Your task to perform on an android device: star an email in the gmail app Image 0: 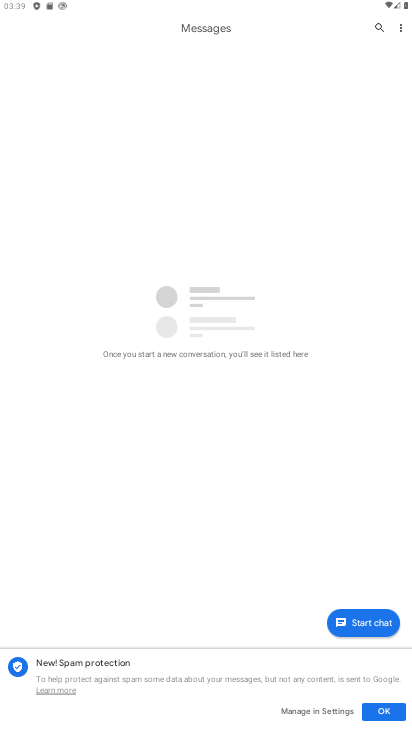
Step 0: press home button
Your task to perform on an android device: star an email in the gmail app Image 1: 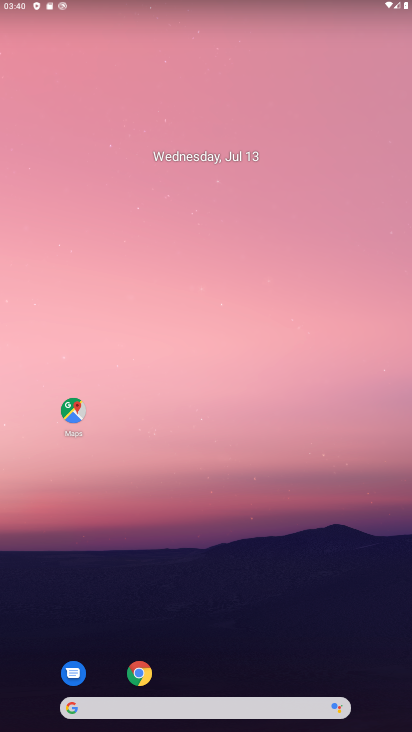
Step 1: drag from (302, 636) to (311, 64)
Your task to perform on an android device: star an email in the gmail app Image 2: 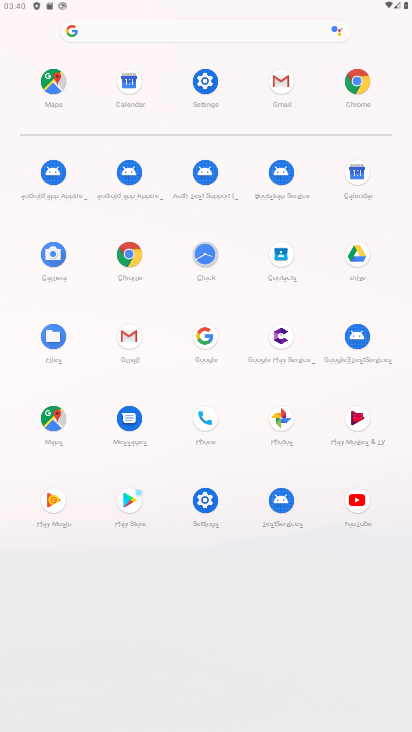
Step 2: click (129, 331)
Your task to perform on an android device: star an email in the gmail app Image 3: 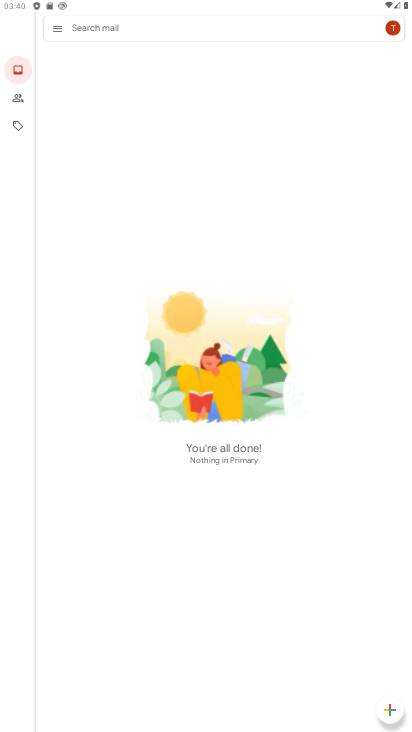
Step 3: click (52, 32)
Your task to perform on an android device: star an email in the gmail app Image 4: 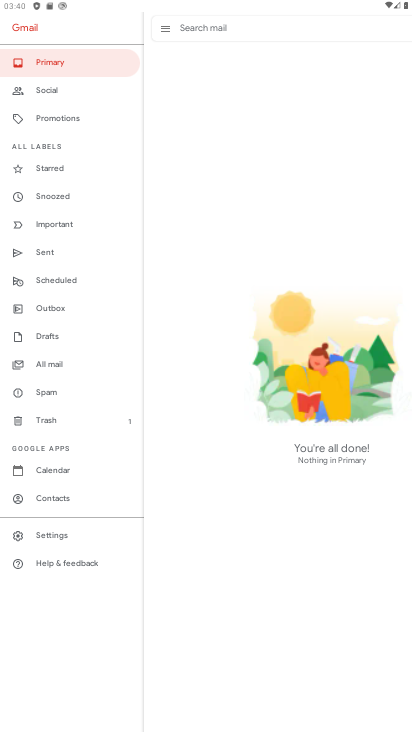
Step 4: click (269, 205)
Your task to perform on an android device: star an email in the gmail app Image 5: 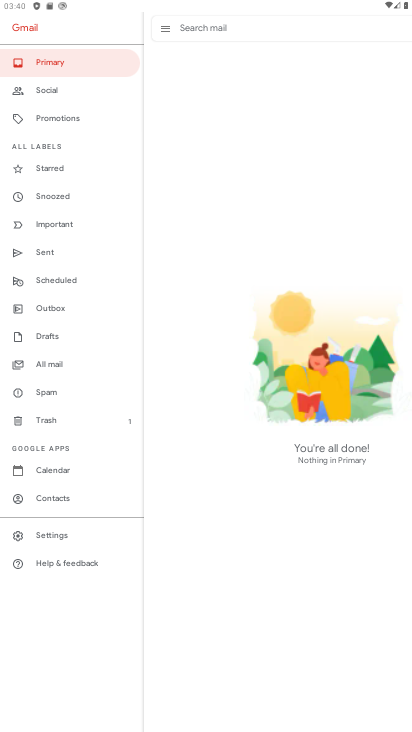
Step 5: task complete